Your task to perform on an android device: Go to Amazon Image 0: 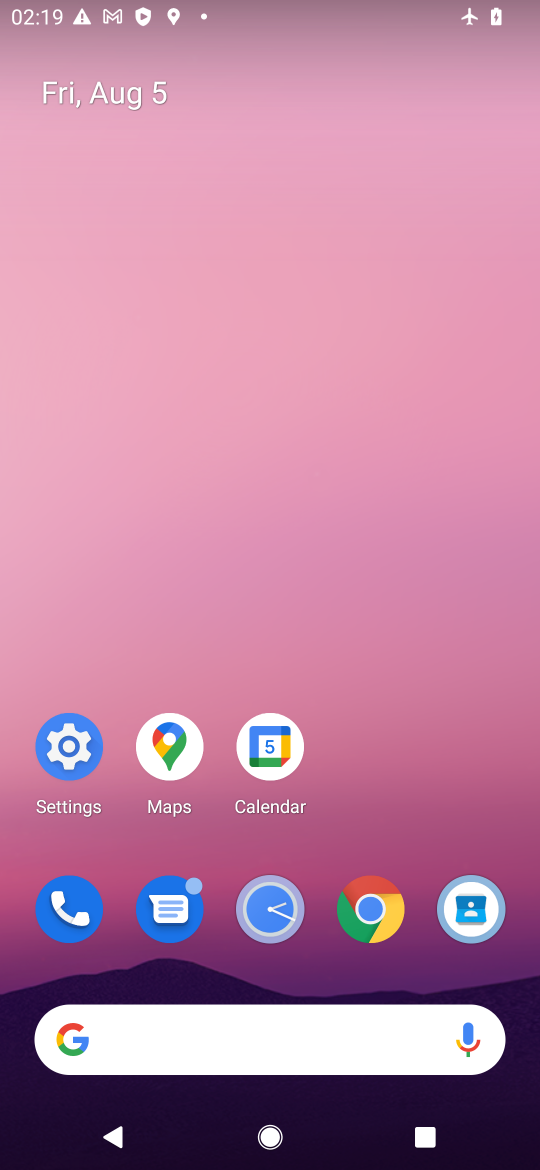
Step 0: click (380, 918)
Your task to perform on an android device: Go to Amazon Image 1: 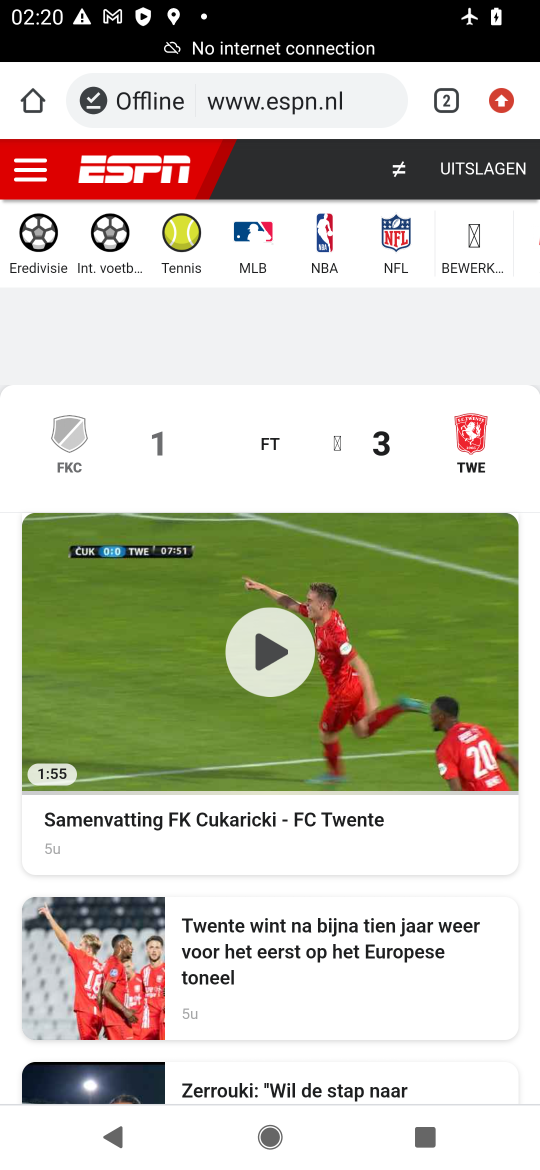
Step 1: click (496, 90)
Your task to perform on an android device: Go to Amazon Image 2: 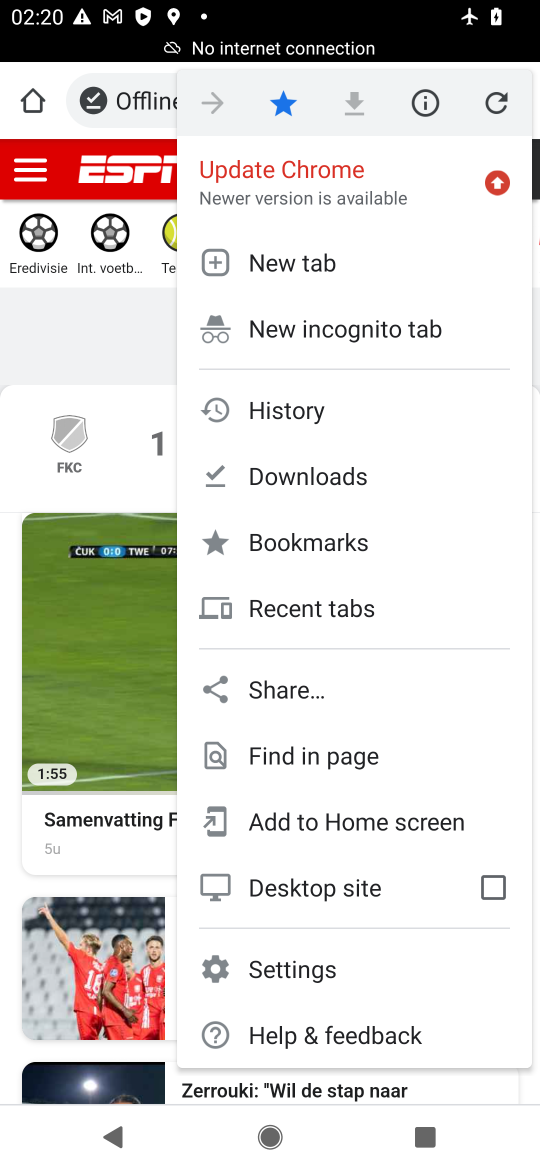
Step 2: click (288, 257)
Your task to perform on an android device: Go to Amazon Image 3: 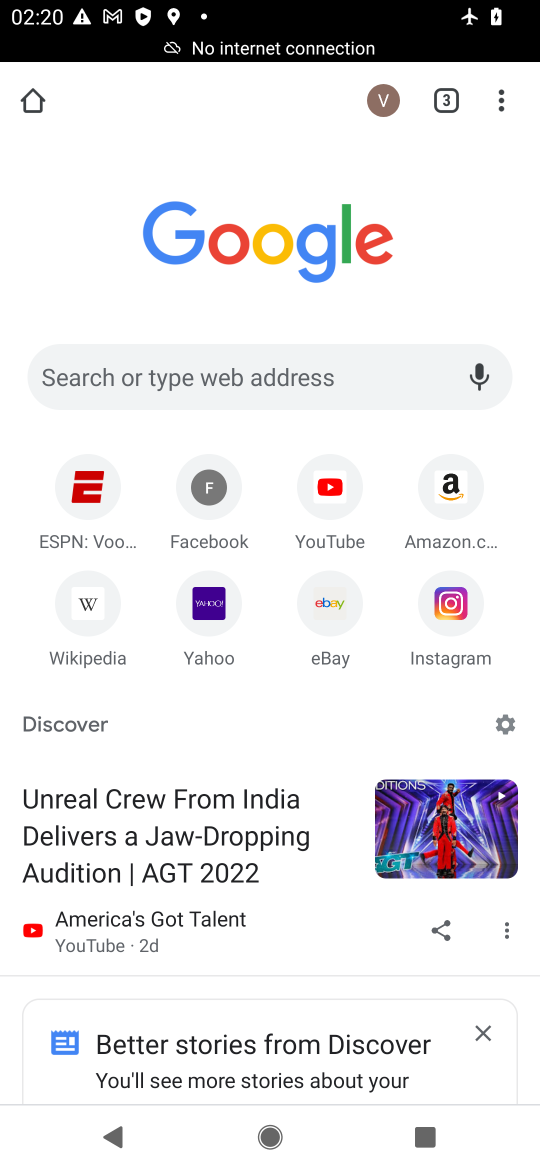
Step 3: click (449, 480)
Your task to perform on an android device: Go to Amazon Image 4: 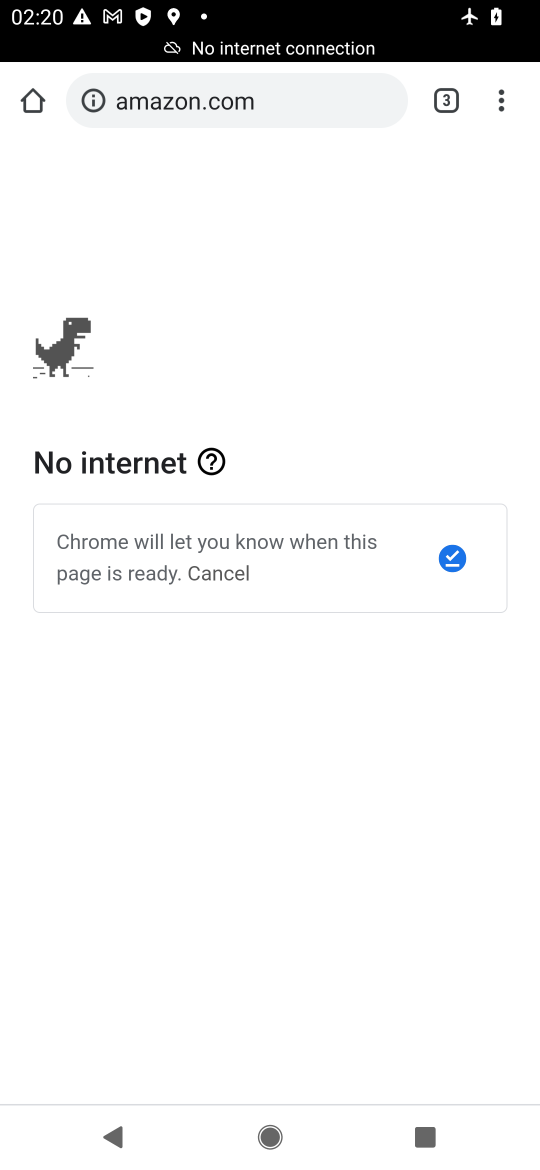
Step 4: task complete